Your task to perform on an android device: Search for seafood restaurants on Google Maps Image 0: 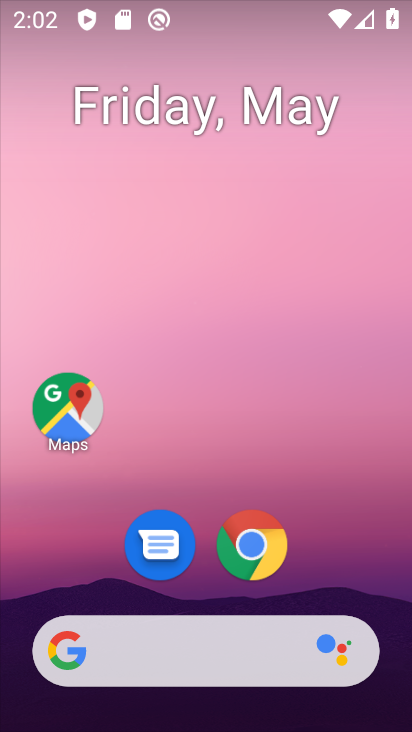
Step 0: click (51, 420)
Your task to perform on an android device: Search for seafood restaurants on Google Maps Image 1: 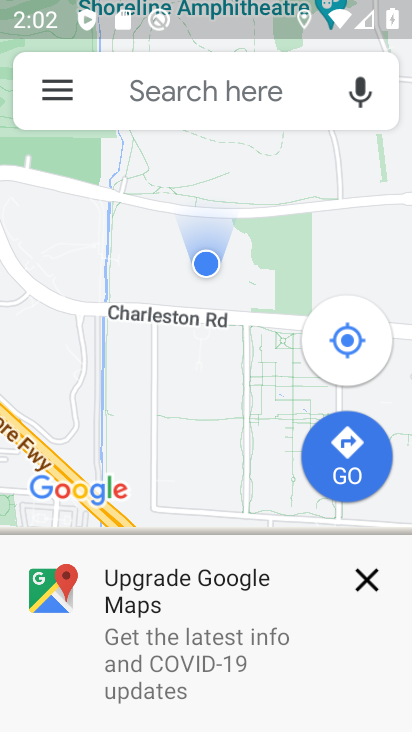
Step 1: click (233, 90)
Your task to perform on an android device: Search for seafood restaurants on Google Maps Image 2: 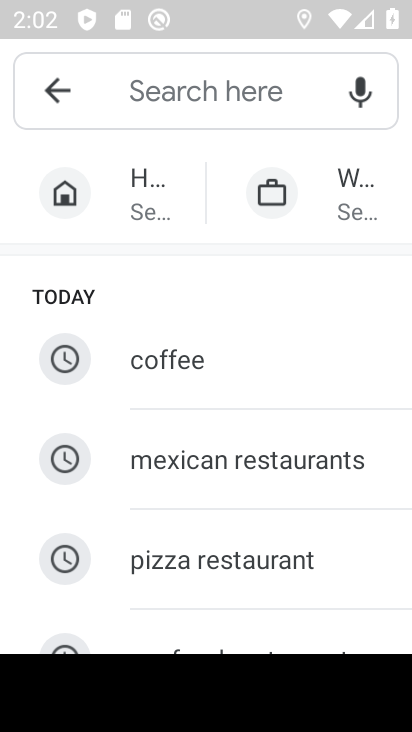
Step 2: type "seafood restaurants"
Your task to perform on an android device: Search for seafood restaurants on Google Maps Image 3: 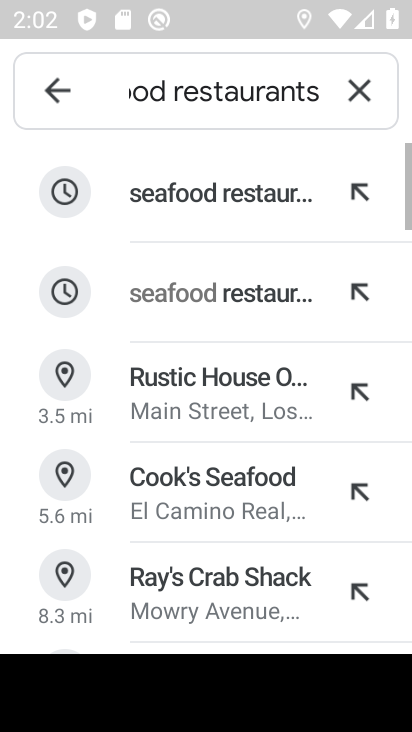
Step 3: click (239, 223)
Your task to perform on an android device: Search for seafood restaurants on Google Maps Image 4: 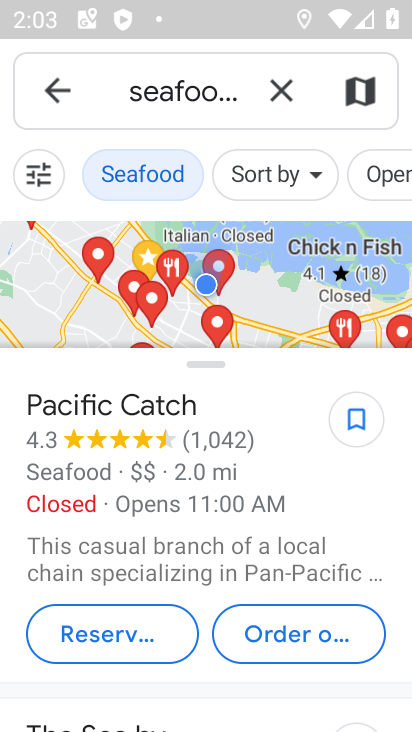
Step 4: task complete